Your task to perform on an android device: turn pop-ups off in chrome Image 0: 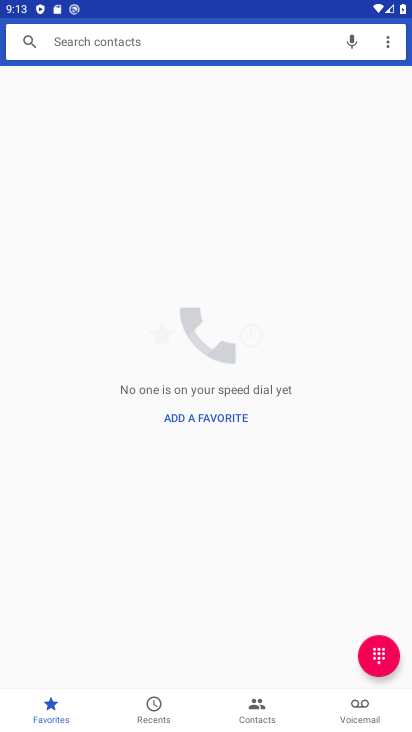
Step 0: press home button
Your task to perform on an android device: turn pop-ups off in chrome Image 1: 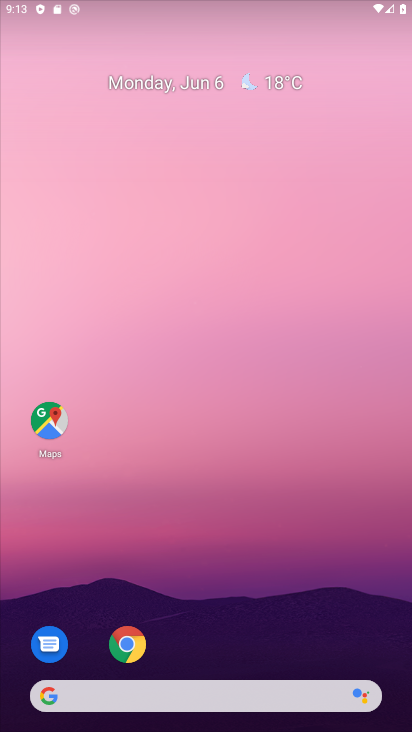
Step 1: drag from (354, 628) to (311, 174)
Your task to perform on an android device: turn pop-ups off in chrome Image 2: 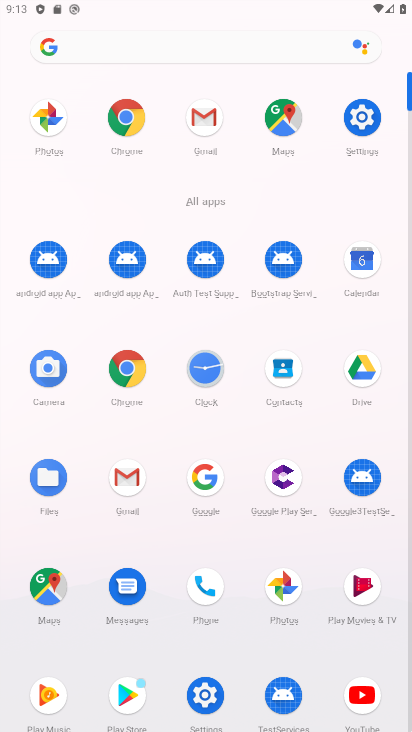
Step 2: click (137, 380)
Your task to perform on an android device: turn pop-ups off in chrome Image 3: 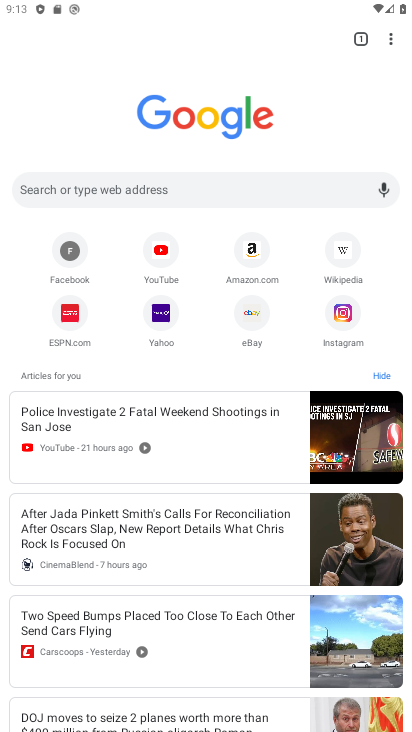
Step 3: drag from (394, 45) to (261, 332)
Your task to perform on an android device: turn pop-ups off in chrome Image 4: 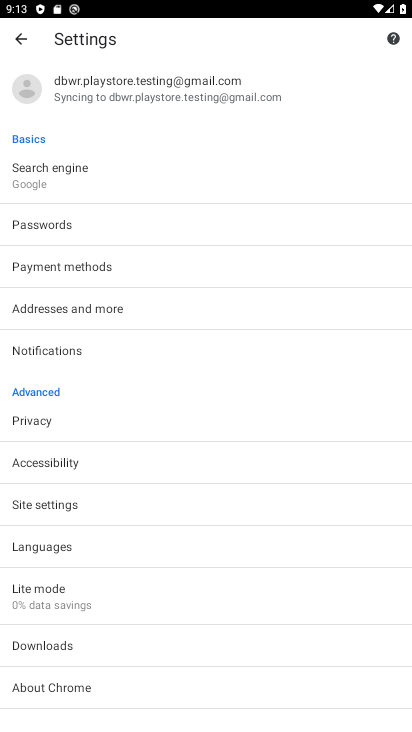
Step 4: click (120, 510)
Your task to perform on an android device: turn pop-ups off in chrome Image 5: 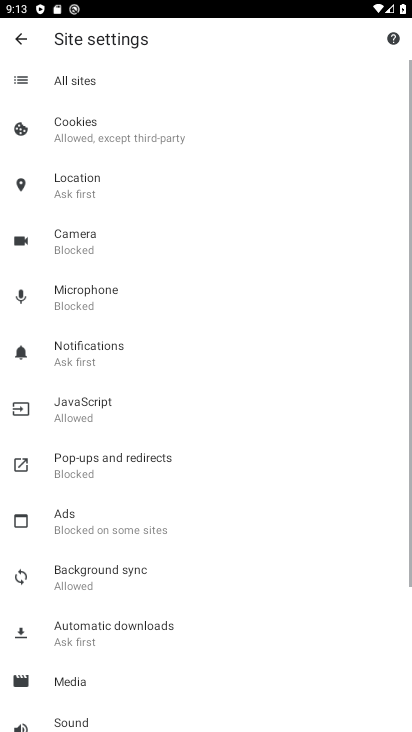
Step 5: drag from (235, 631) to (232, 411)
Your task to perform on an android device: turn pop-ups off in chrome Image 6: 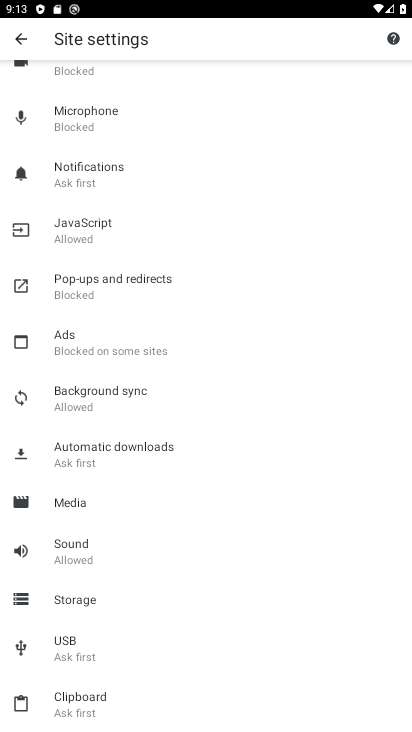
Step 6: click (169, 292)
Your task to perform on an android device: turn pop-ups off in chrome Image 7: 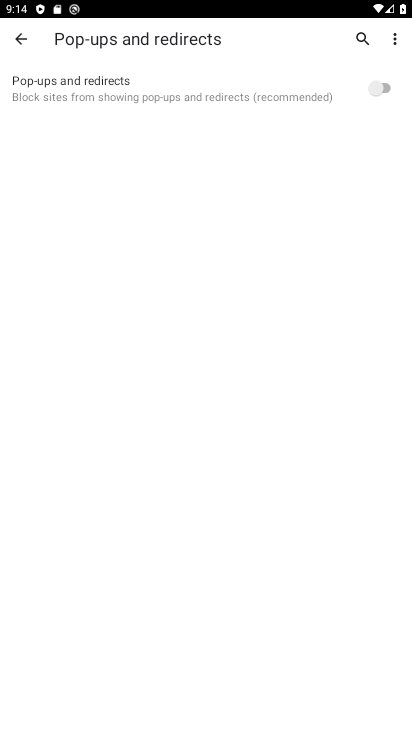
Step 7: task complete